Your task to perform on an android device: Open settings on Google Maps Image 0: 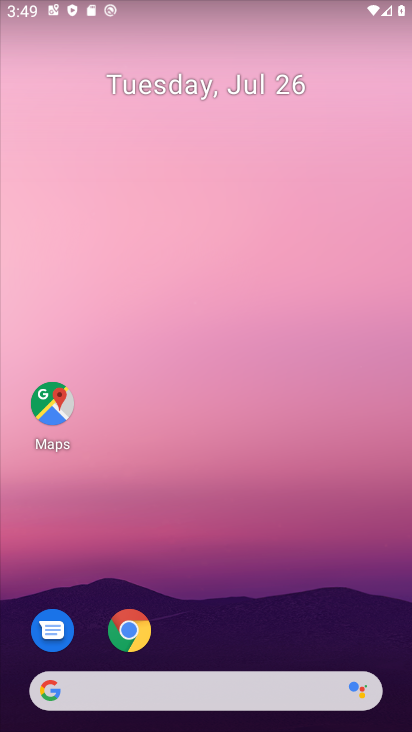
Step 0: drag from (223, 636) to (325, 0)
Your task to perform on an android device: Open settings on Google Maps Image 1: 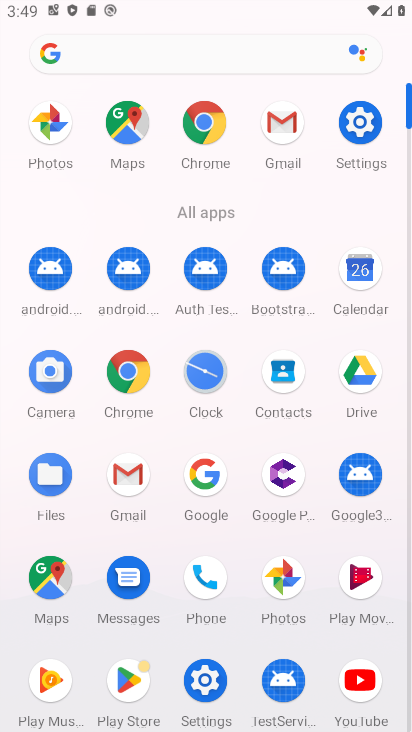
Step 1: click (130, 120)
Your task to perform on an android device: Open settings on Google Maps Image 2: 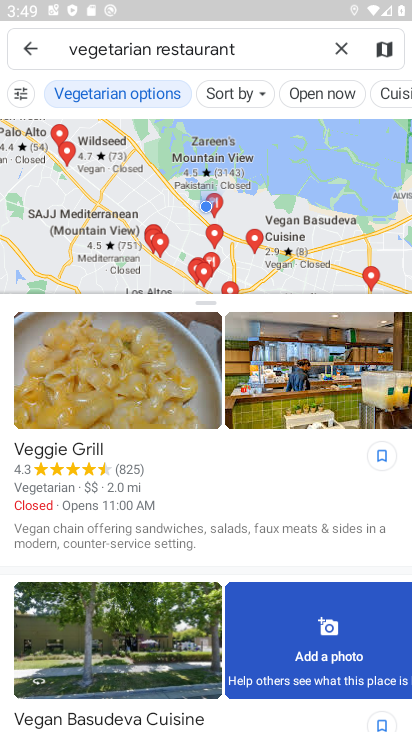
Step 2: click (38, 41)
Your task to perform on an android device: Open settings on Google Maps Image 3: 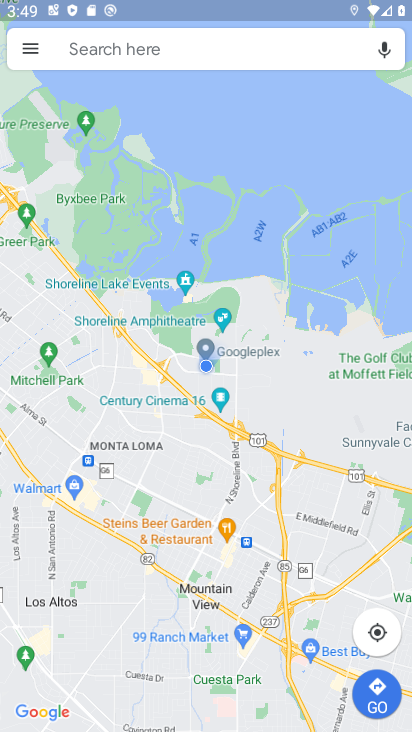
Step 3: click (27, 45)
Your task to perform on an android device: Open settings on Google Maps Image 4: 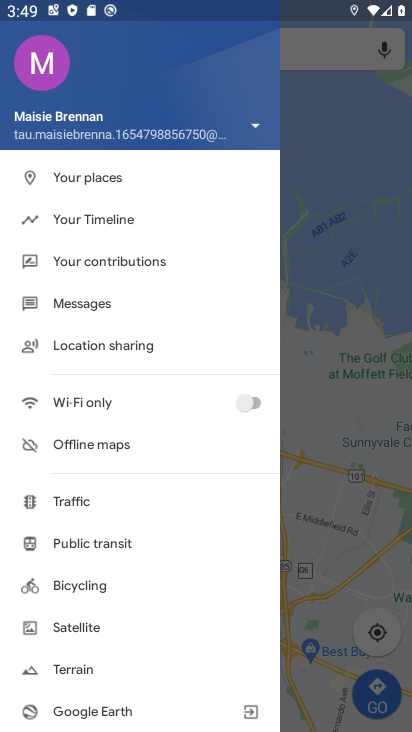
Step 4: drag from (131, 694) to (63, 78)
Your task to perform on an android device: Open settings on Google Maps Image 5: 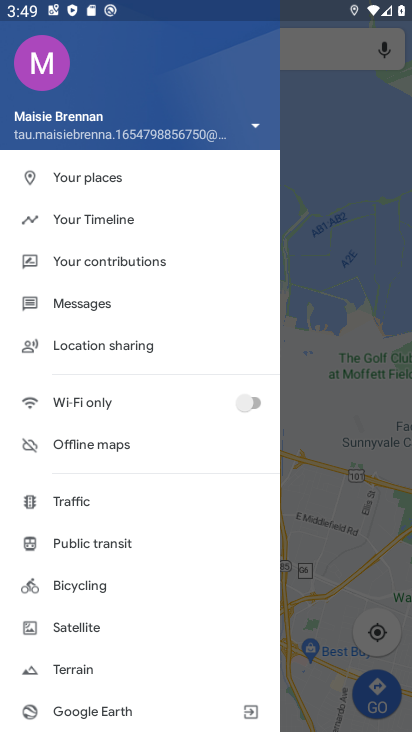
Step 5: drag from (72, 691) to (20, 70)
Your task to perform on an android device: Open settings on Google Maps Image 6: 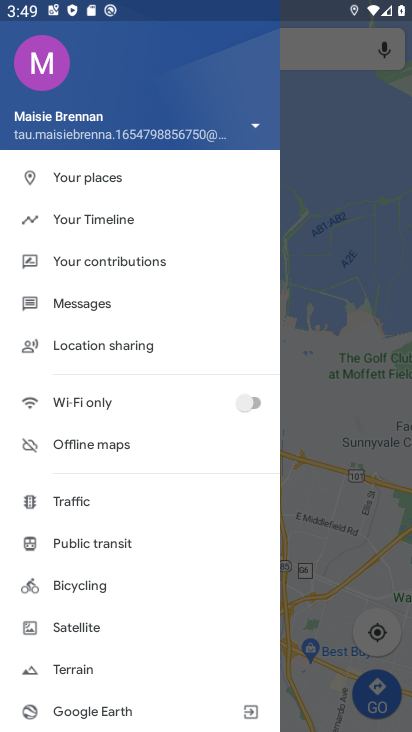
Step 6: drag from (144, 675) to (119, 186)
Your task to perform on an android device: Open settings on Google Maps Image 7: 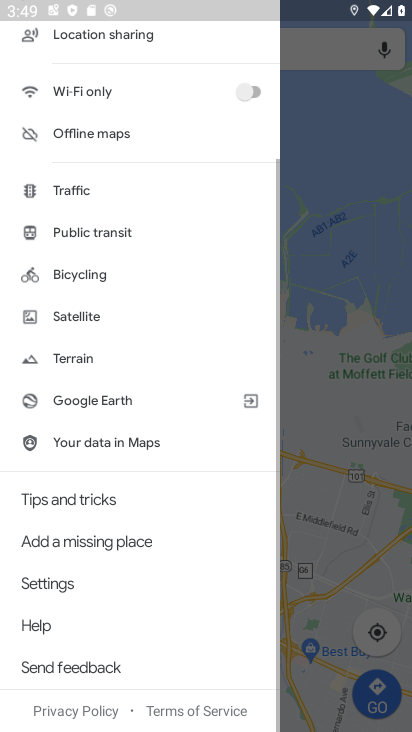
Step 7: click (115, 587)
Your task to perform on an android device: Open settings on Google Maps Image 8: 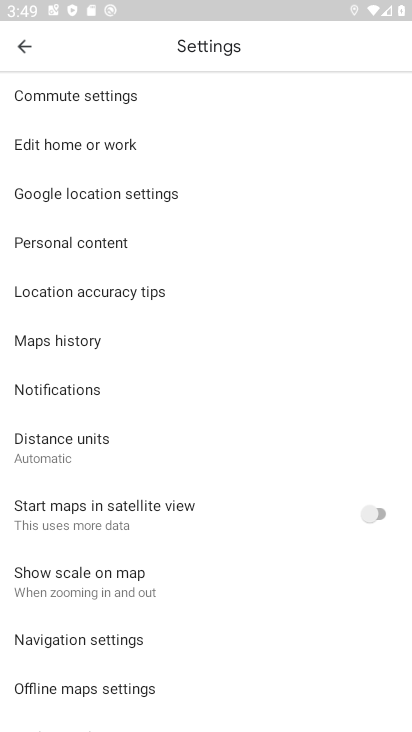
Step 8: task complete